Your task to perform on an android device: turn on bluetooth scan Image 0: 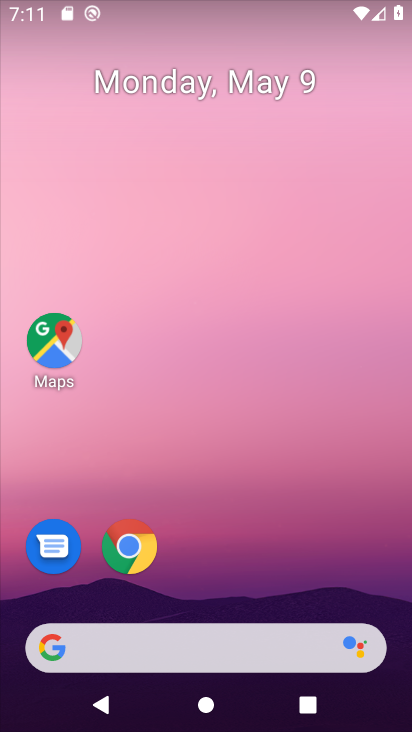
Step 0: drag from (213, 548) to (241, 169)
Your task to perform on an android device: turn on bluetooth scan Image 1: 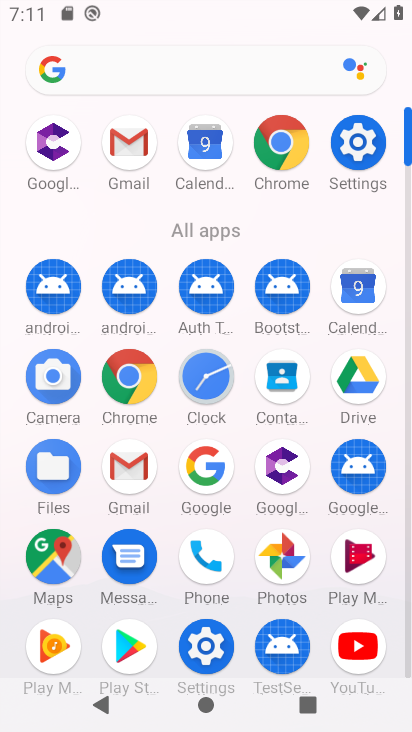
Step 1: click (353, 148)
Your task to perform on an android device: turn on bluetooth scan Image 2: 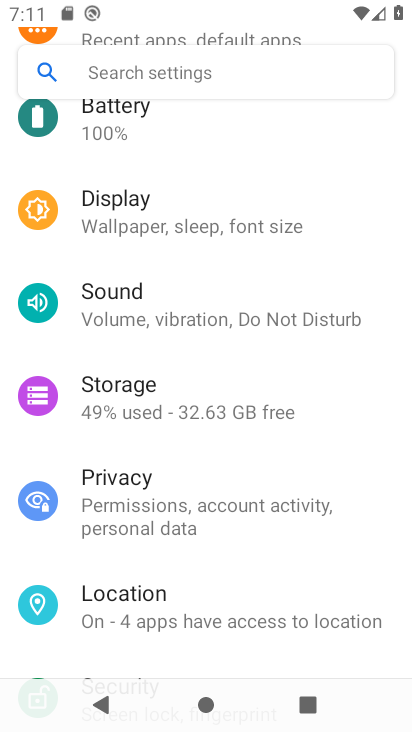
Step 2: click (203, 606)
Your task to perform on an android device: turn on bluetooth scan Image 3: 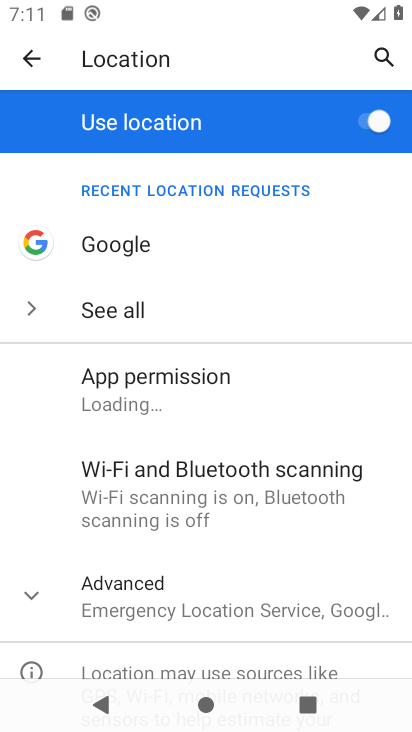
Step 3: click (245, 507)
Your task to perform on an android device: turn on bluetooth scan Image 4: 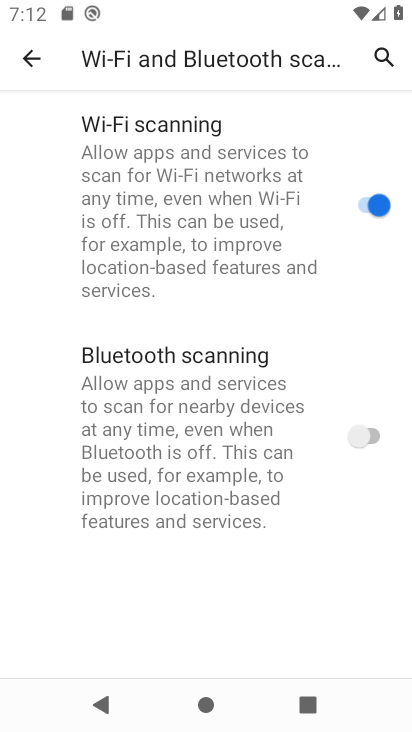
Step 4: click (344, 450)
Your task to perform on an android device: turn on bluetooth scan Image 5: 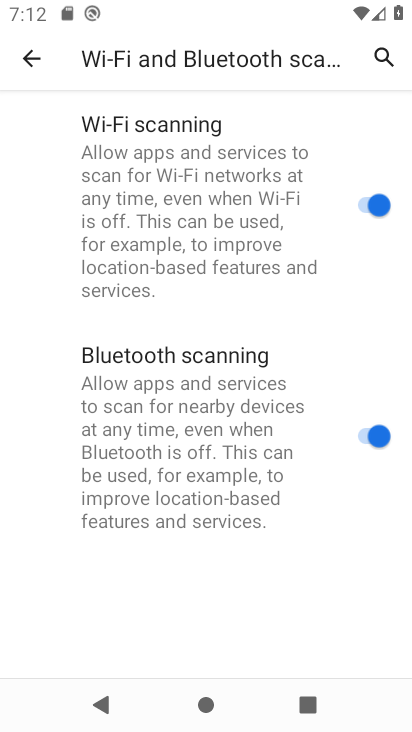
Step 5: task complete